Your task to perform on an android device: Show me the alarms in the clock app Image 0: 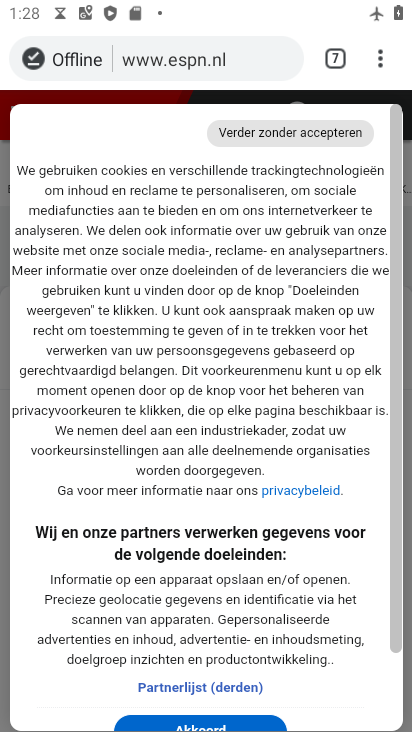
Step 0: press home button
Your task to perform on an android device: Show me the alarms in the clock app Image 1: 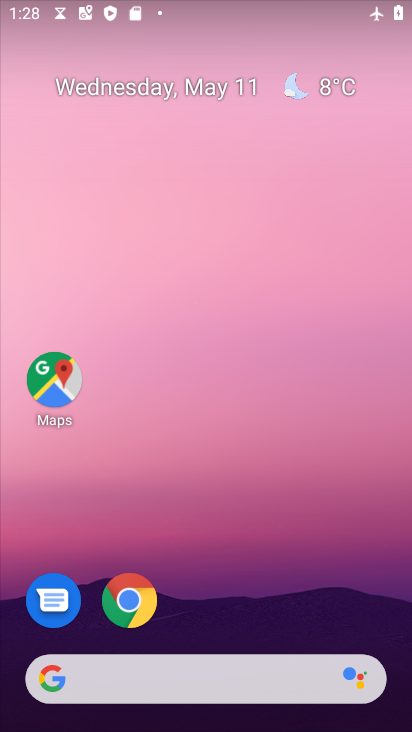
Step 1: drag from (241, 510) to (212, 97)
Your task to perform on an android device: Show me the alarms in the clock app Image 2: 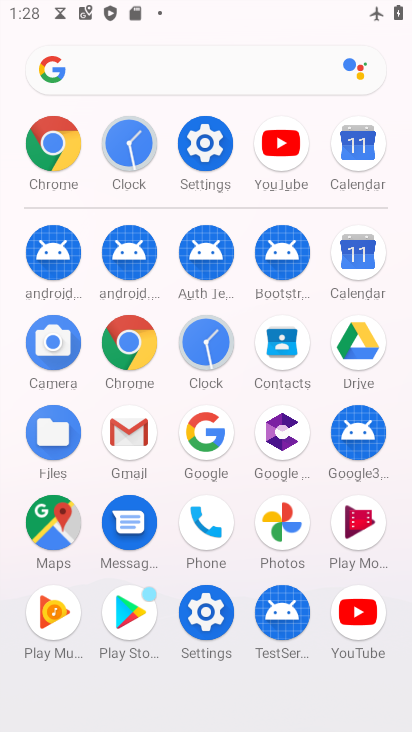
Step 2: click (216, 354)
Your task to perform on an android device: Show me the alarms in the clock app Image 3: 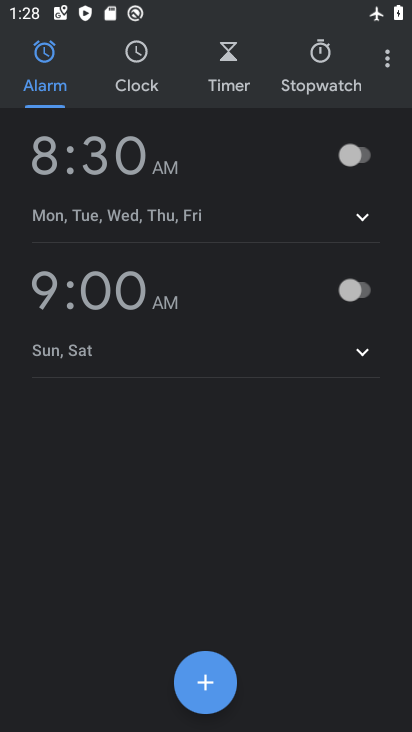
Step 3: task complete